Your task to perform on an android device: Clear the shopping cart on bestbuy.com. Add razer huntsman to the cart on bestbuy.com, then select checkout. Image 0: 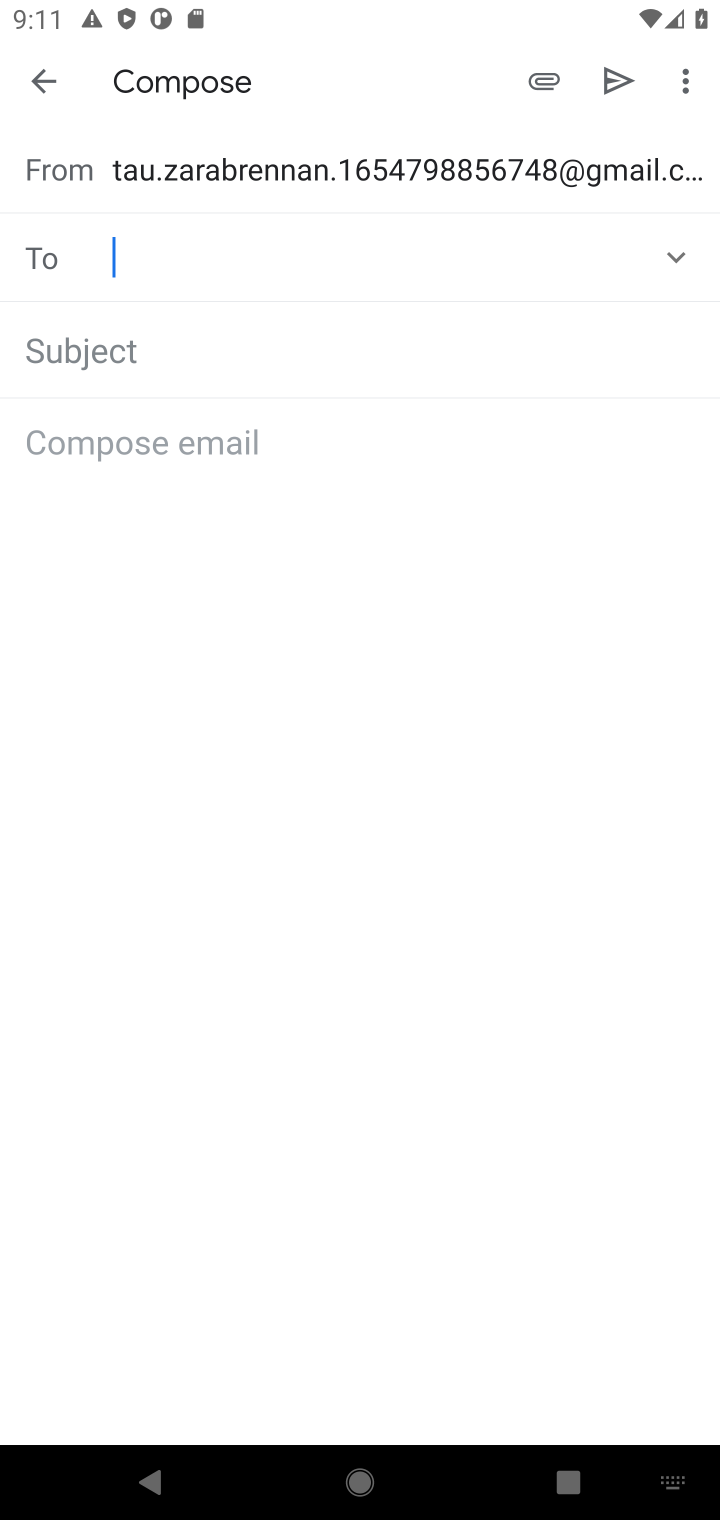
Step 0: press home button
Your task to perform on an android device: Clear the shopping cart on bestbuy.com. Add razer huntsman to the cart on bestbuy.com, then select checkout. Image 1: 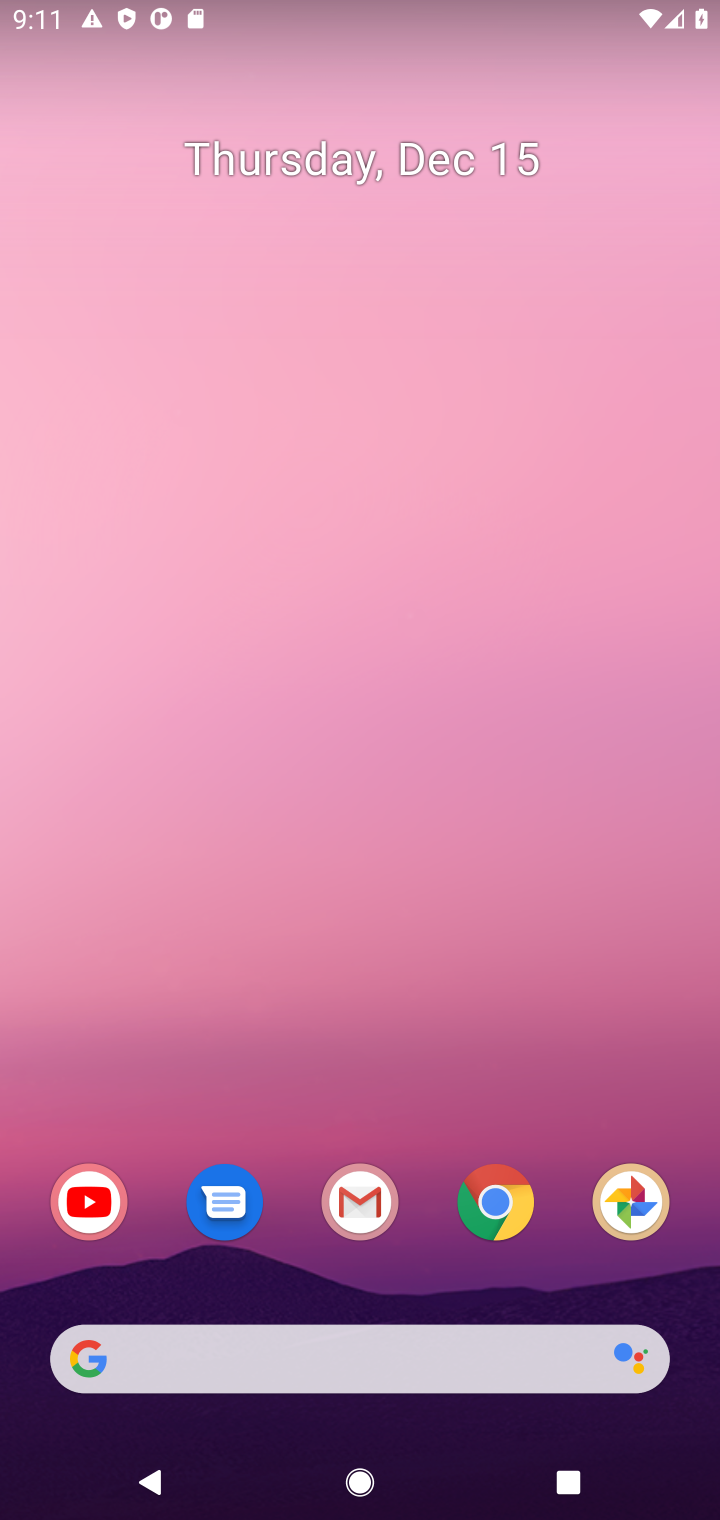
Step 1: click (501, 1199)
Your task to perform on an android device: Clear the shopping cart on bestbuy.com. Add razer huntsman to the cart on bestbuy.com, then select checkout. Image 2: 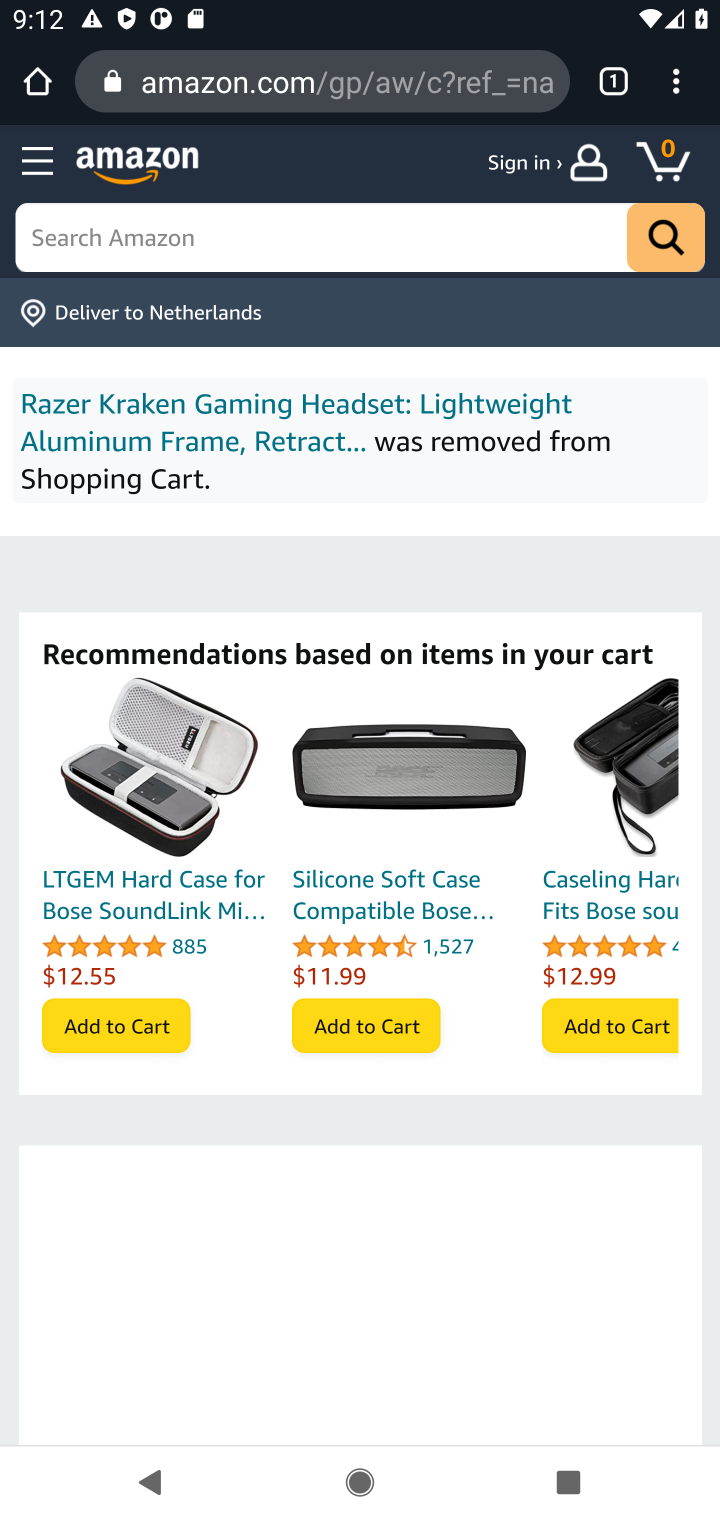
Step 2: click (263, 82)
Your task to perform on an android device: Clear the shopping cart on bestbuy.com. Add razer huntsman to the cart on bestbuy.com, then select checkout. Image 3: 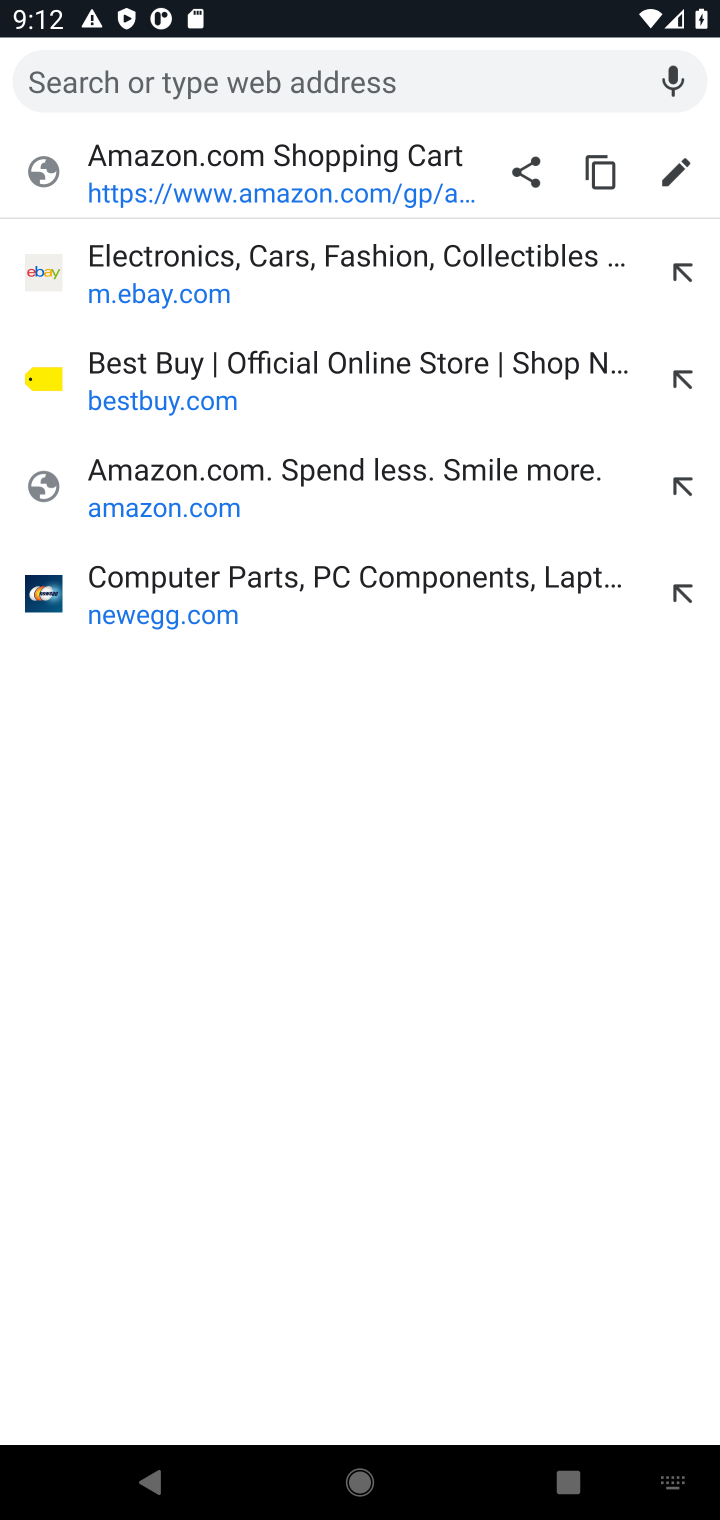
Step 3: click (167, 386)
Your task to perform on an android device: Clear the shopping cart on bestbuy.com. Add razer huntsman to the cart on bestbuy.com, then select checkout. Image 4: 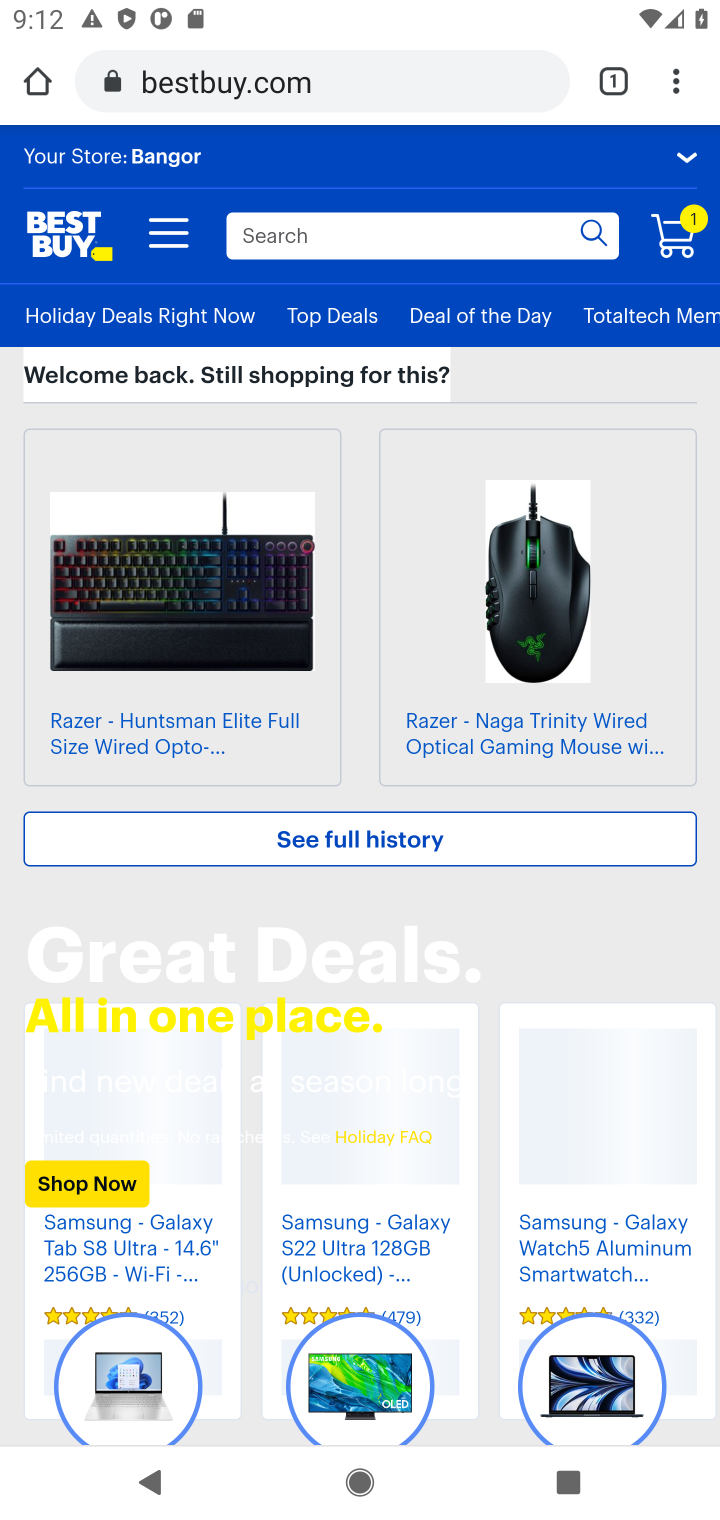
Step 4: click (680, 227)
Your task to perform on an android device: Clear the shopping cart on bestbuy.com. Add razer huntsman to the cart on bestbuy.com, then select checkout. Image 5: 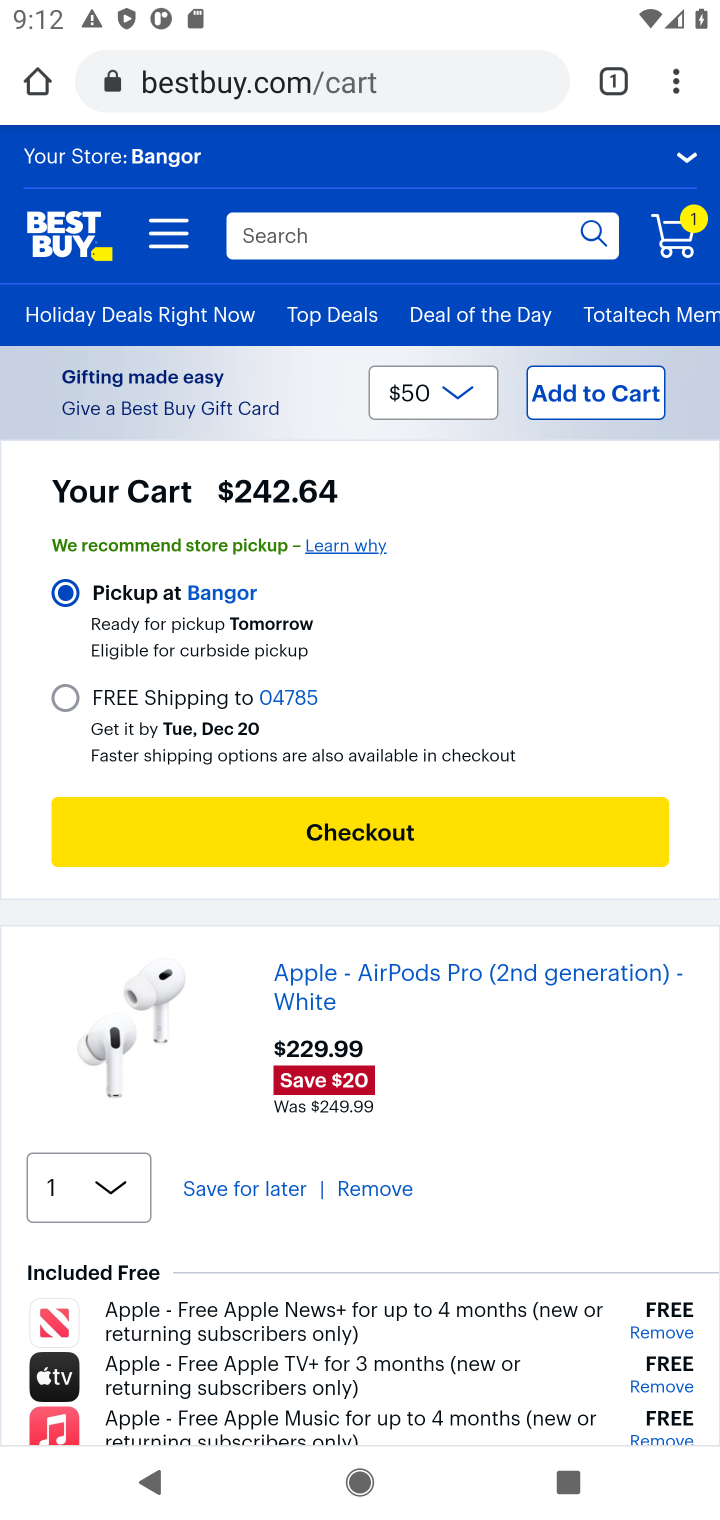
Step 5: drag from (423, 1085) to (431, 705)
Your task to perform on an android device: Clear the shopping cart on bestbuy.com. Add razer huntsman to the cart on bestbuy.com, then select checkout. Image 6: 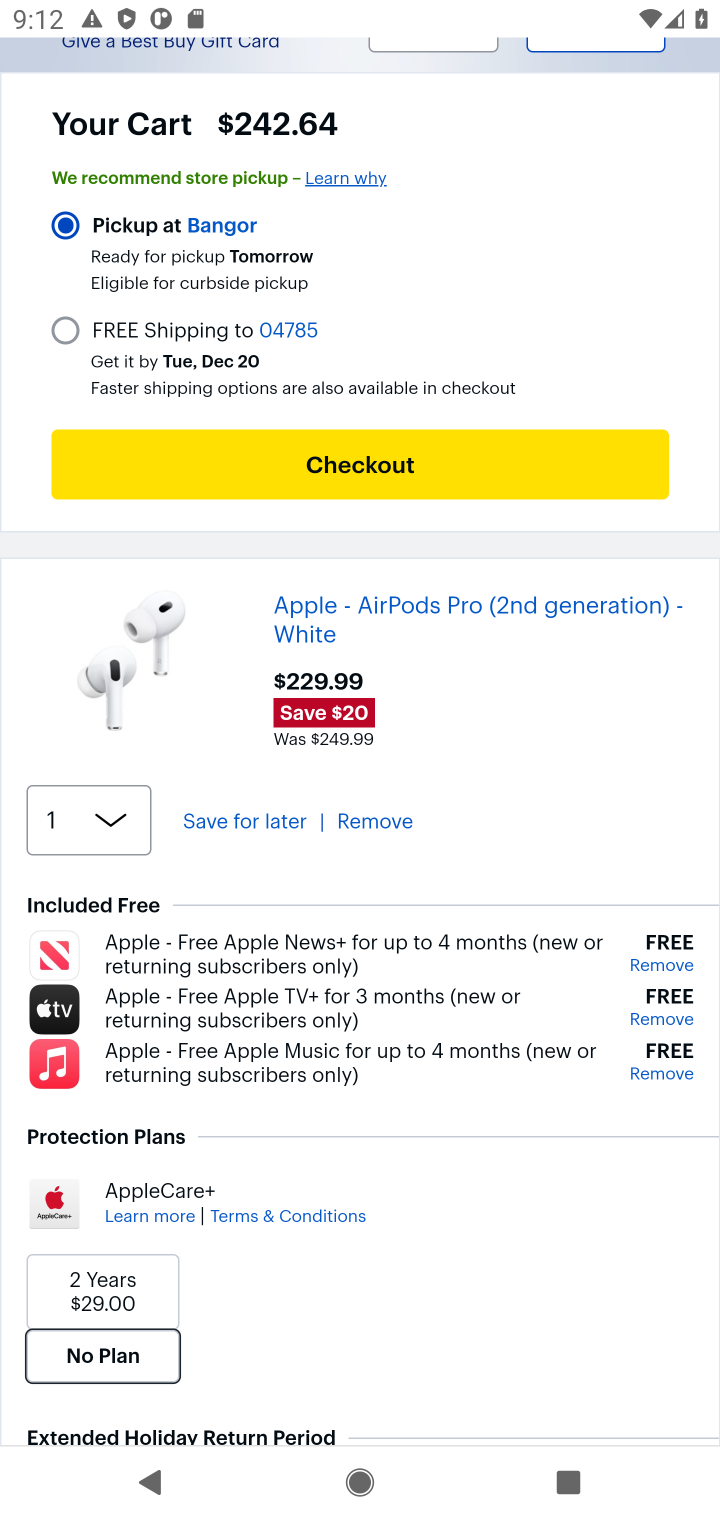
Step 6: click (361, 815)
Your task to perform on an android device: Clear the shopping cart on bestbuy.com. Add razer huntsman to the cart on bestbuy.com, then select checkout. Image 7: 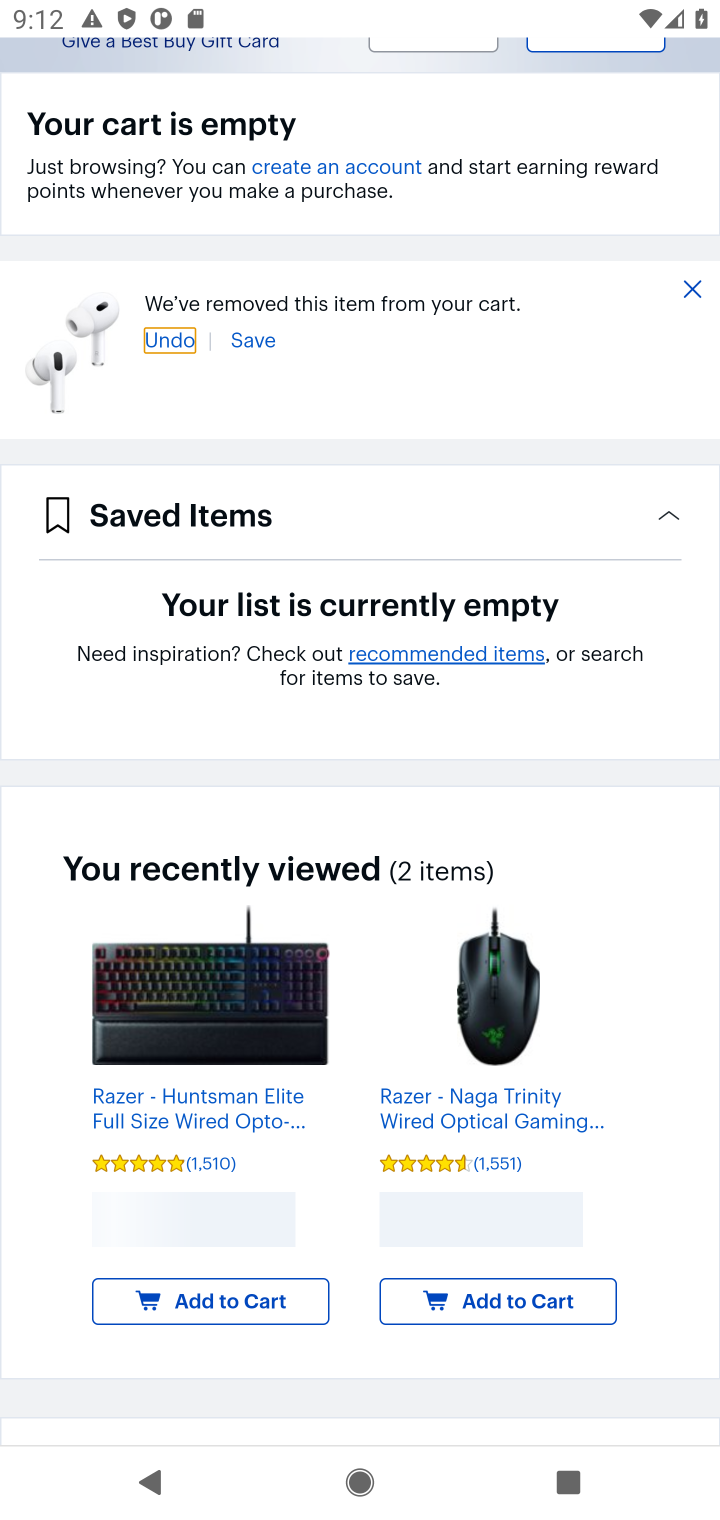
Step 7: drag from (605, 434) to (504, 892)
Your task to perform on an android device: Clear the shopping cart on bestbuy.com. Add razer huntsman to the cart on bestbuy.com, then select checkout. Image 8: 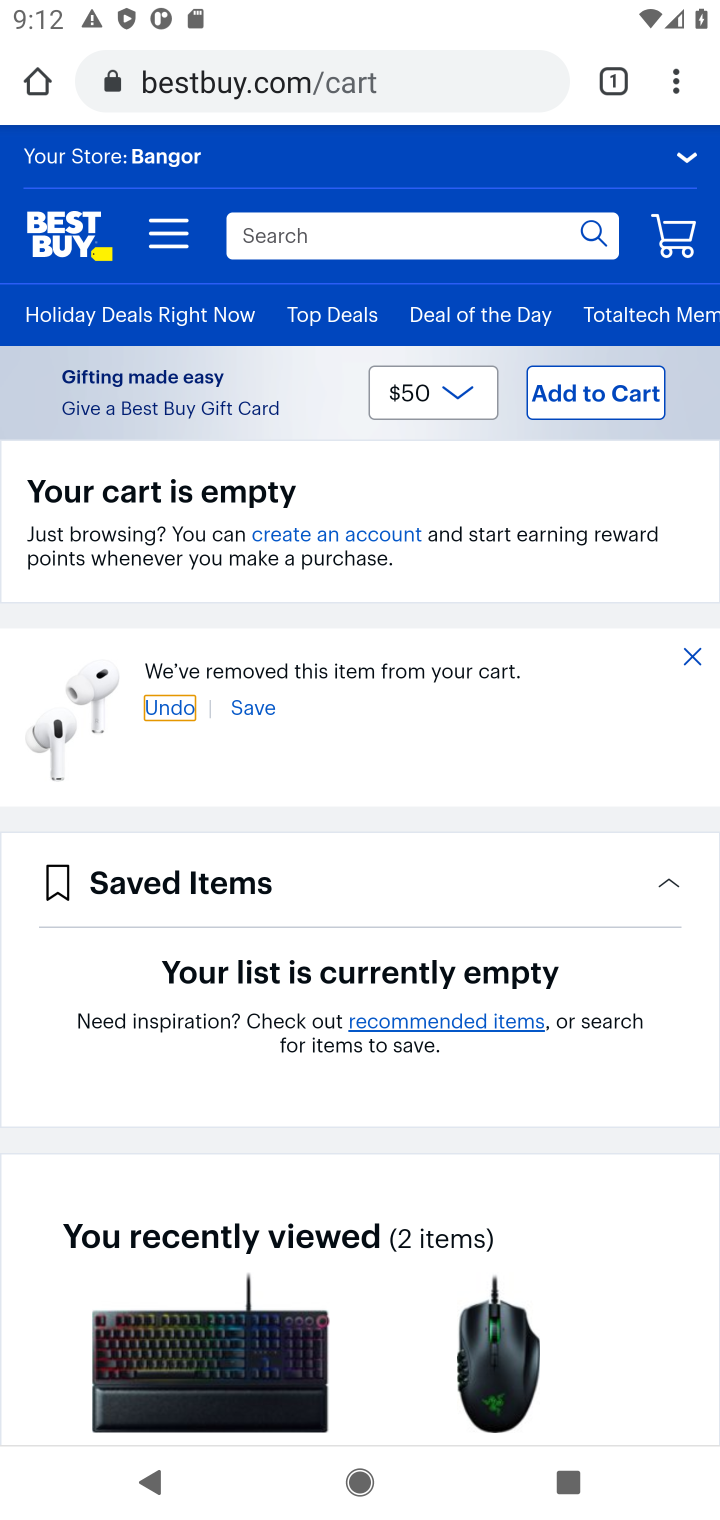
Step 8: click (293, 237)
Your task to perform on an android device: Clear the shopping cart on bestbuy.com. Add razer huntsman to the cart on bestbuy.com, then select checkout. Image 9: 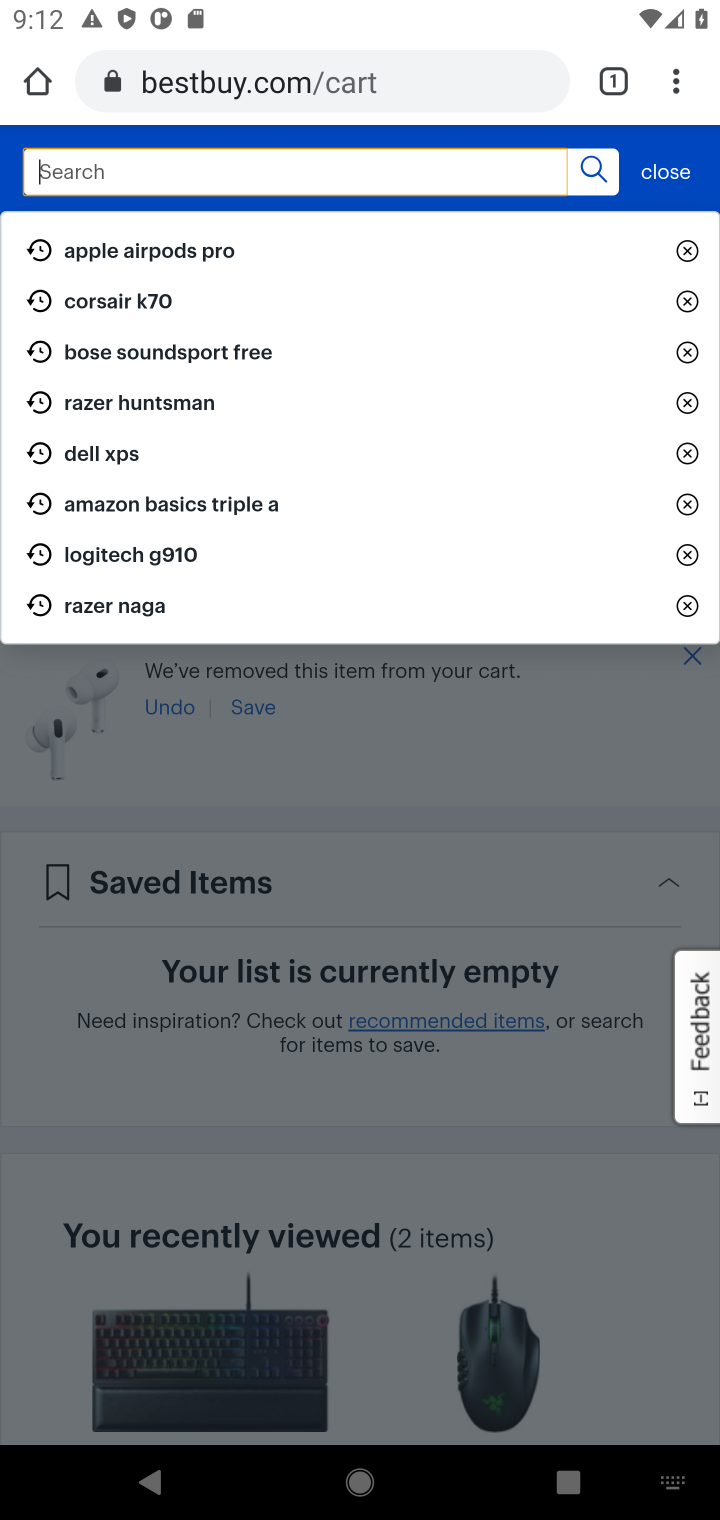
Step 9: type "razer huntsman"
Your task to perform on an android device: Clear the shopping cart on bestbuy.com. Add razer huntsman to the cart on bestbuy.com, then select checkout. Image 10: 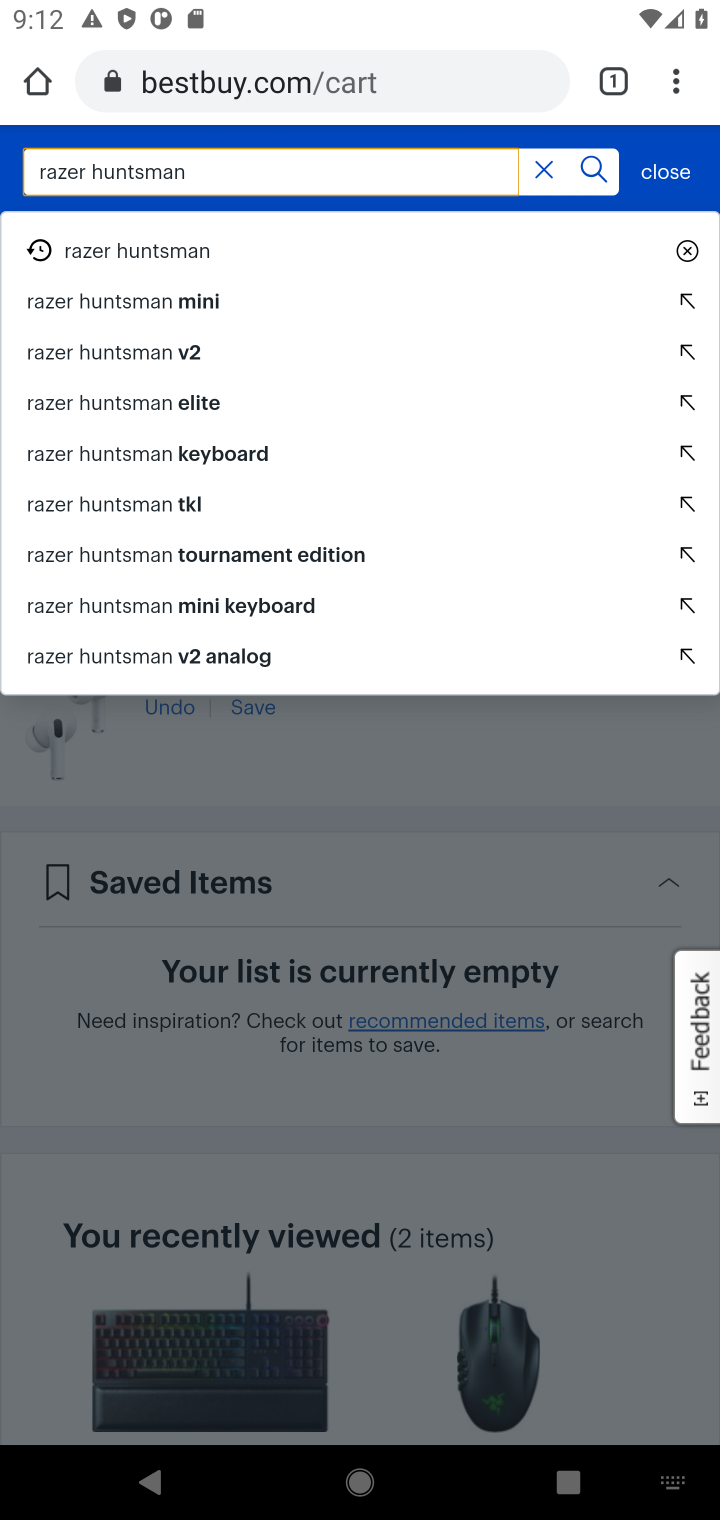
Step 10: click (182, 261)
Your task to perform on an android device: Clear the shopping cart on bestbuy.com. Add razer huntsman to the cart on bestbuy.com, then select checkout. Image 11: 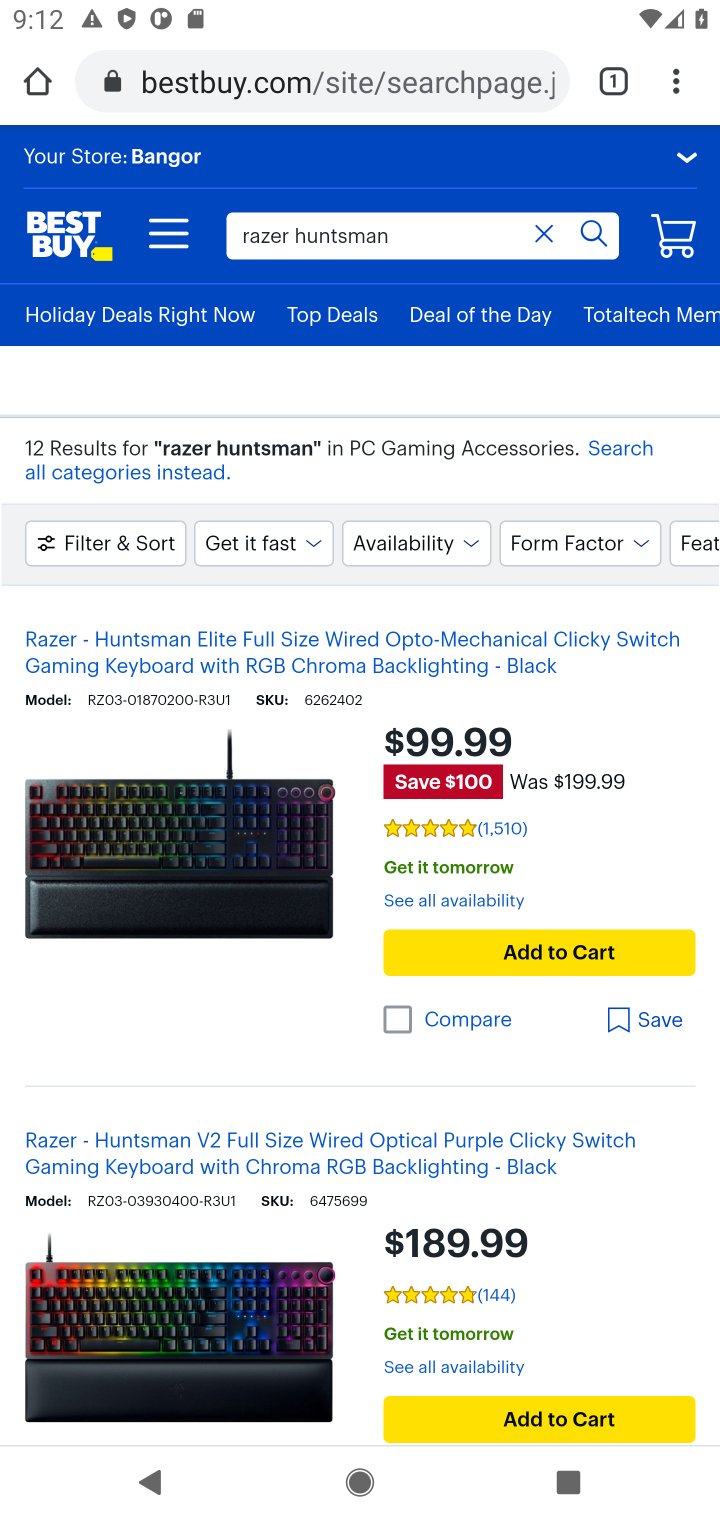
Step 11: click (367, 646)
Your task to perform on an android device: Clear the shopping cart on bestbuy.com. Add razer huntsman to the cart on bestbuy.com, then select checkout. Image 12: 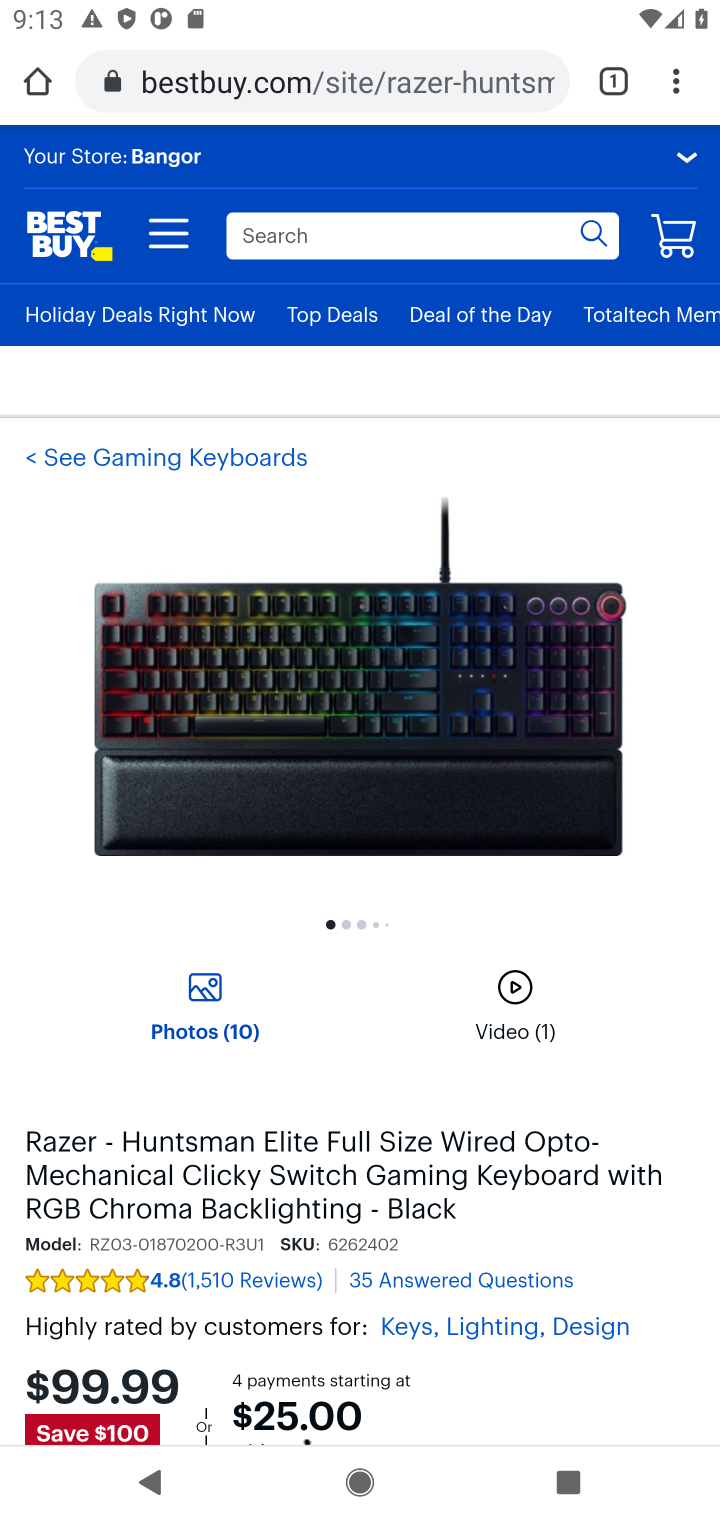
Step 12: drag from (360, 1201) to (355, 807)
Your task to perform on an android device: Clear the shopping cart on bestbuy.com. Add razer huntsman to the cart on bestbuy.com, then select checkout. Image 13: 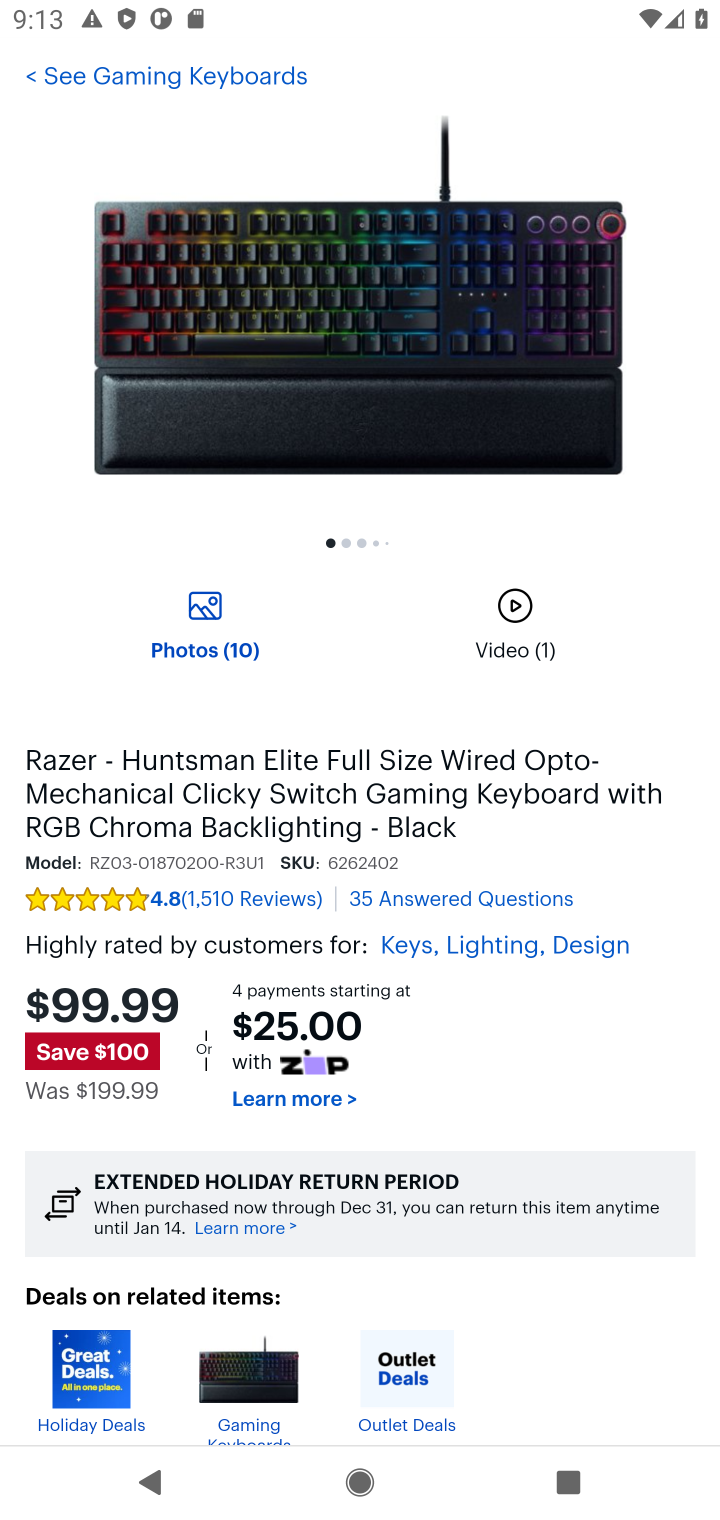
Step 13: drag from (361, 1105) to (333, 555)
Your task to perform on an android device: Clear the shopping cart on bestbuy.com. Add razer huntsman to the cart on bestbuy.com, then select checkout. Image 14: 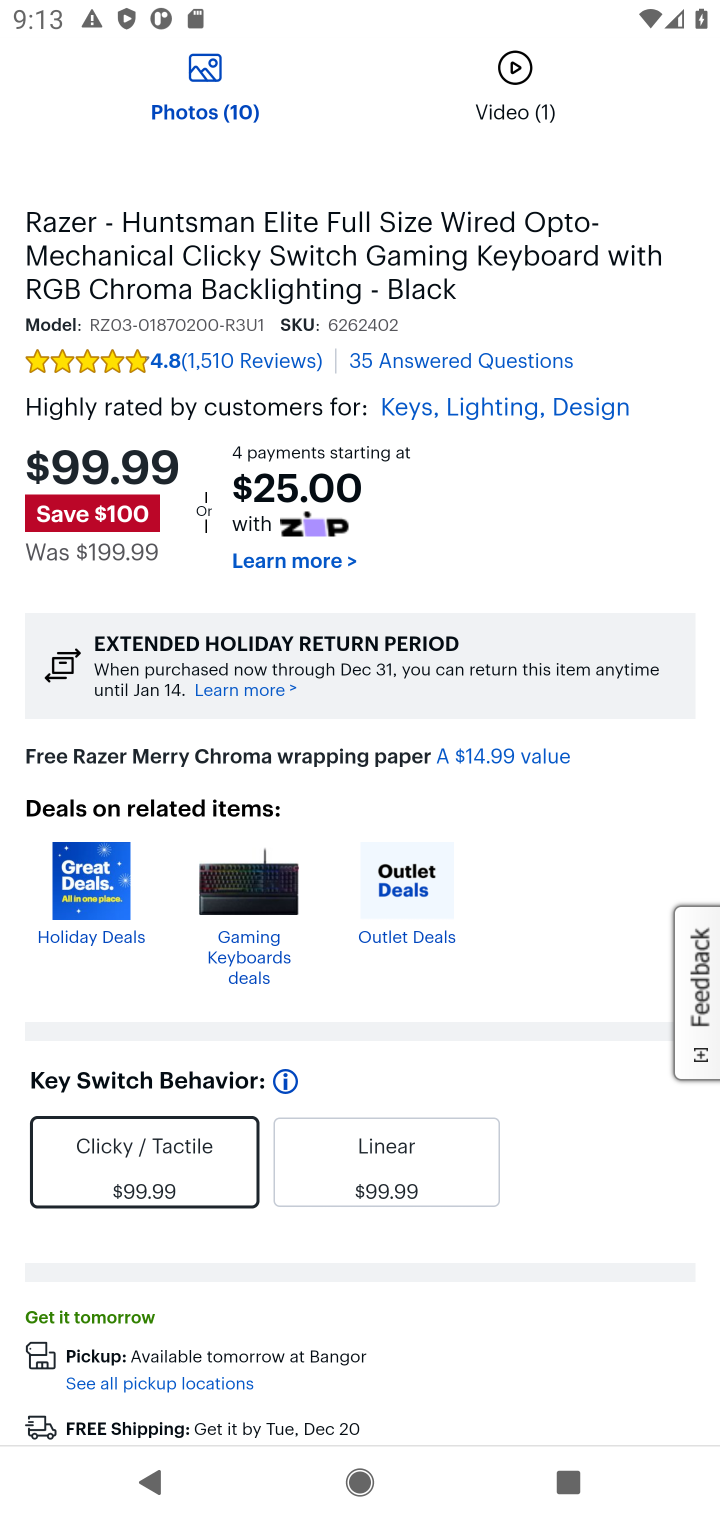
Step 14: drag from (432, 891) to (424, 550)
Your task to perform on an android device: Clear the shopping cart on bestbuy.com. Add razer huntsman to the cart on bestbuy.com, then select checkout. Image 15: 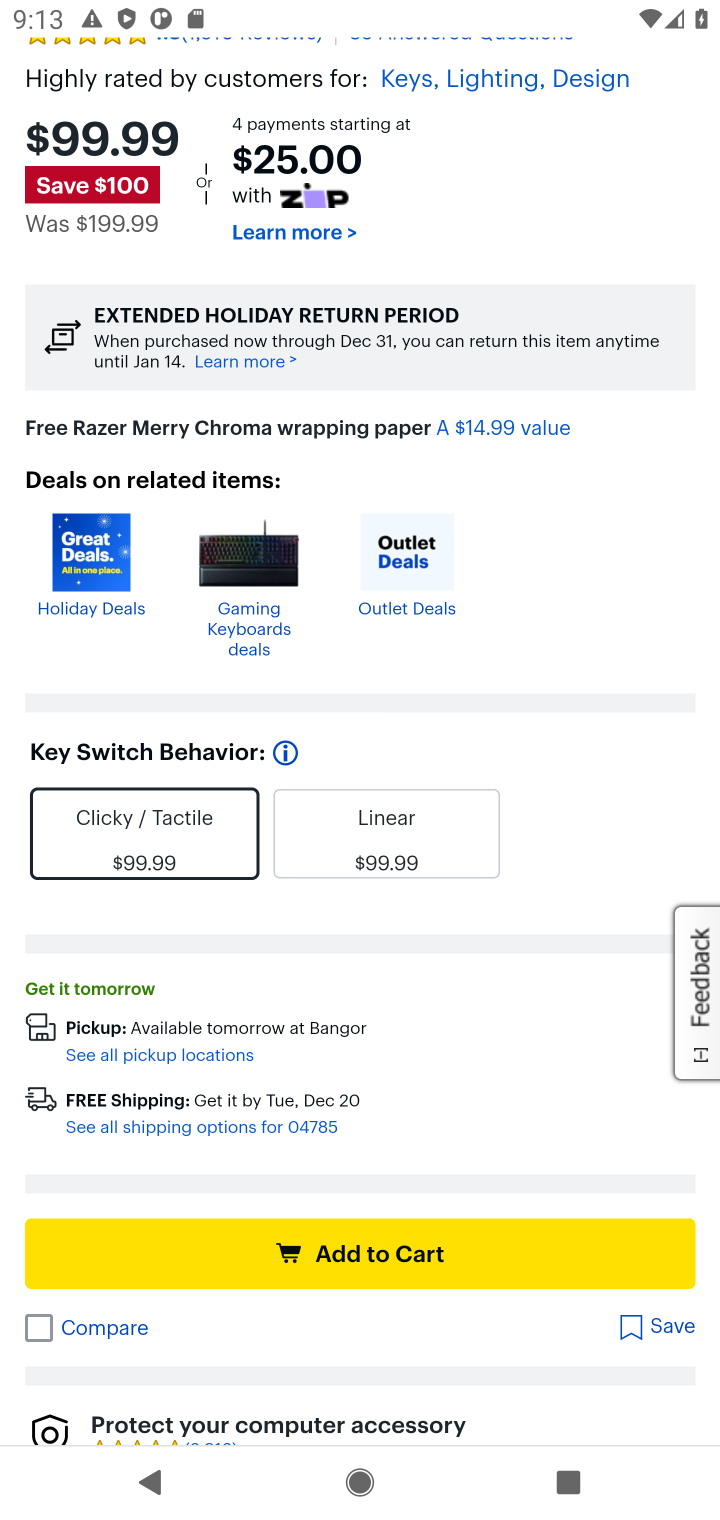
Step 15: click (358, 1247)
Your task to perform on an android device: Clear the shopping cart on bestbuy.com. Add razer huntsman to the cart on bestbuy.com, then select checkout. Image 16: 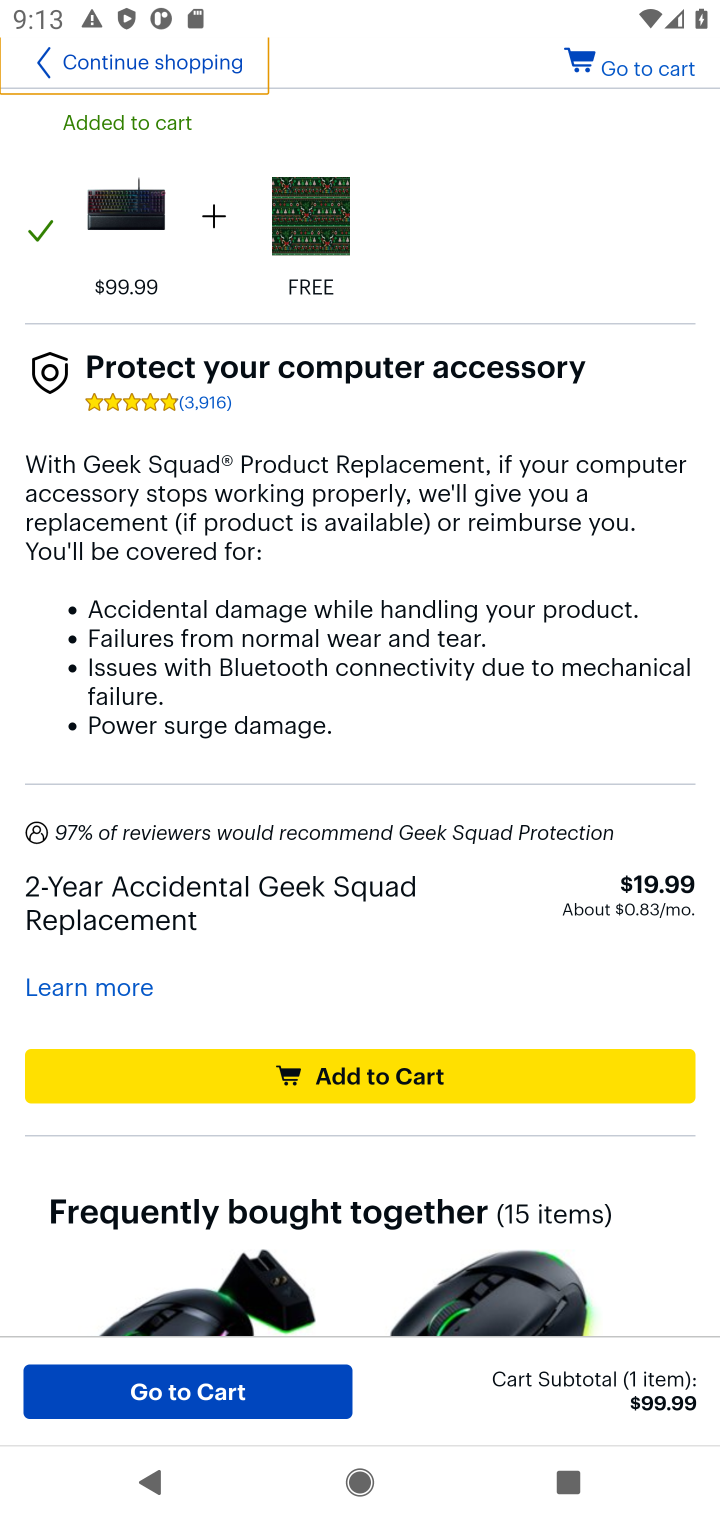
Step 16: click (647, 63)
Your task to perform on an android device: Clear the shopping cart on bestbuy.com. Add razer huntsman to the cart on bestbuy.com, then select checkout. Image 17: 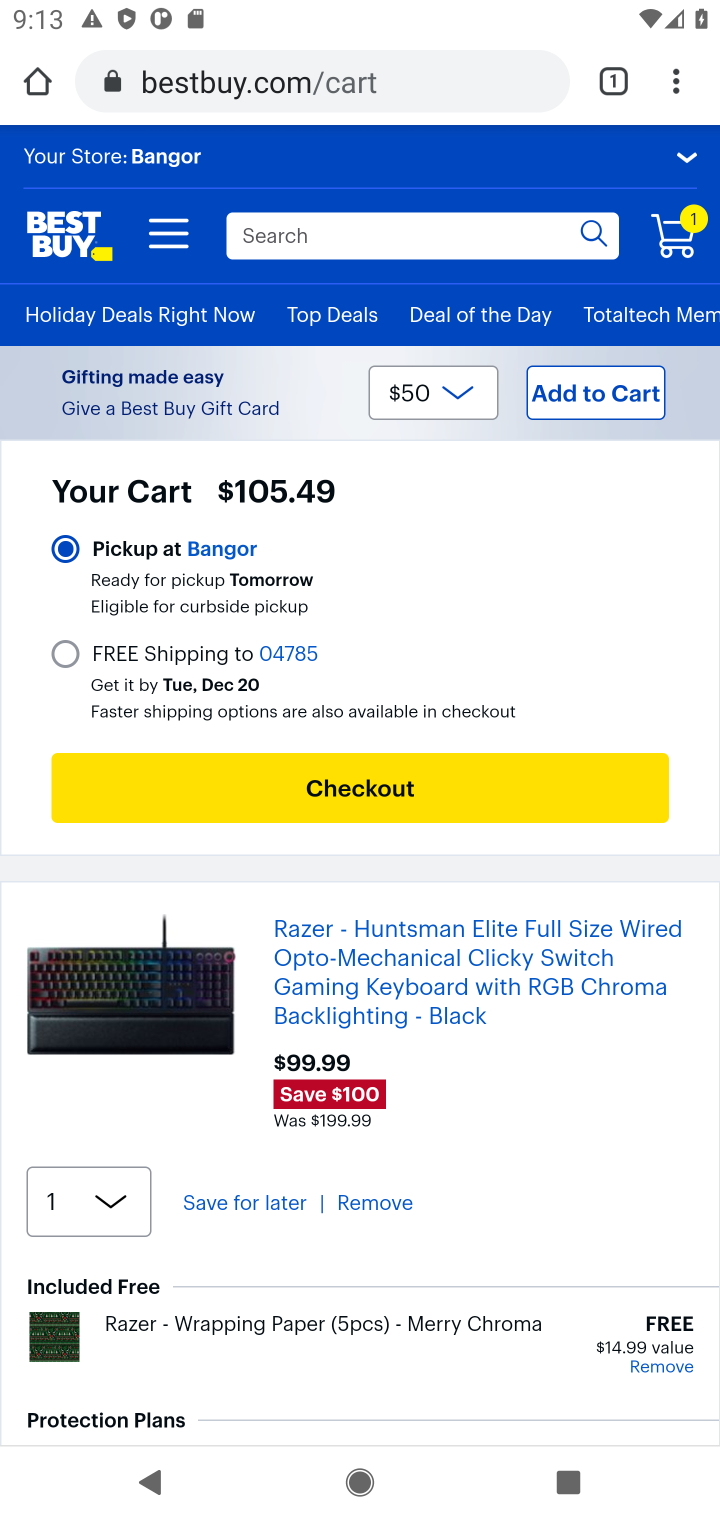
Step 17: click (352, 779)
Your task to perform on an android device: Clear the shopping cart on bestbuy.com. Add razer huntsman to the cart on bestbuy.com, then select checkout. Image 18: 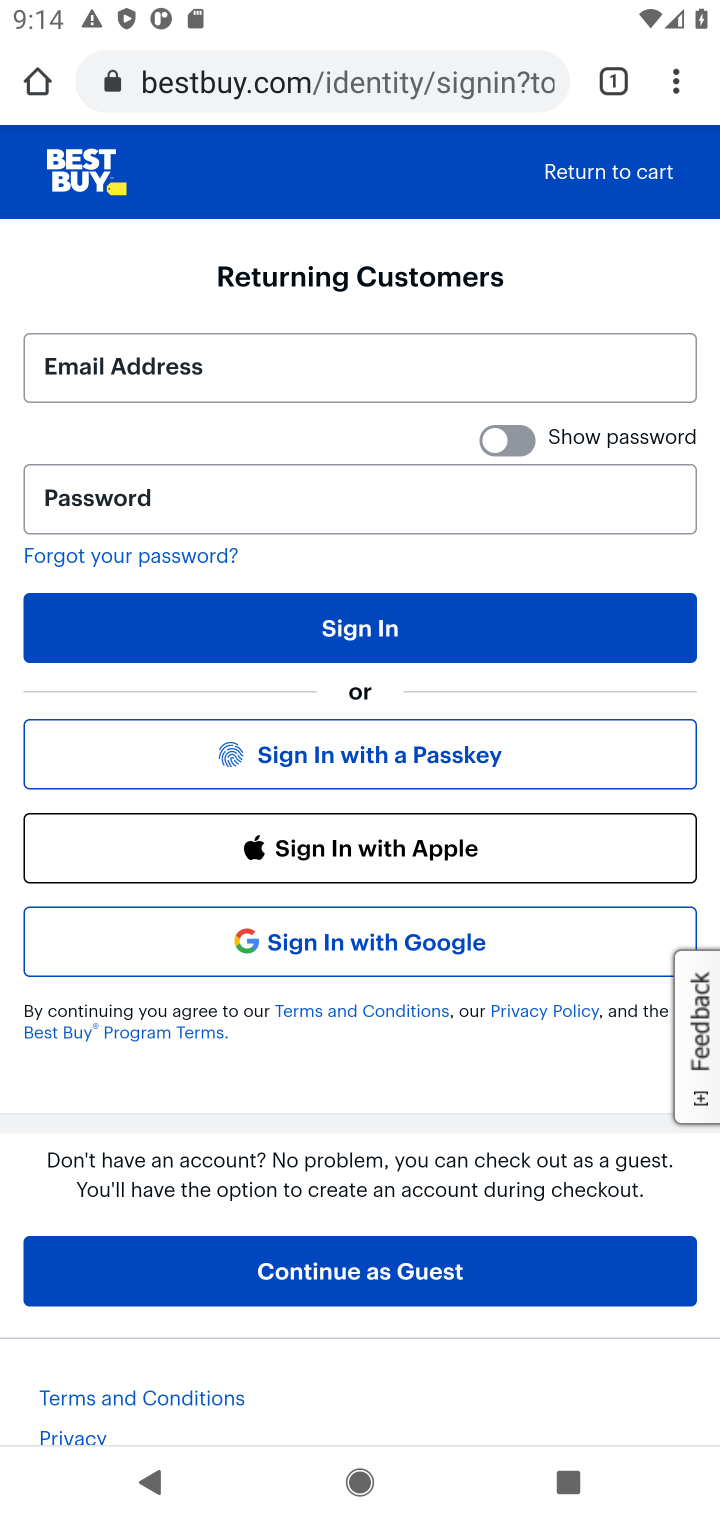
Step 18: task complete